Your task to perform on an android device: find snoozed emails in the gmail app Image 0: 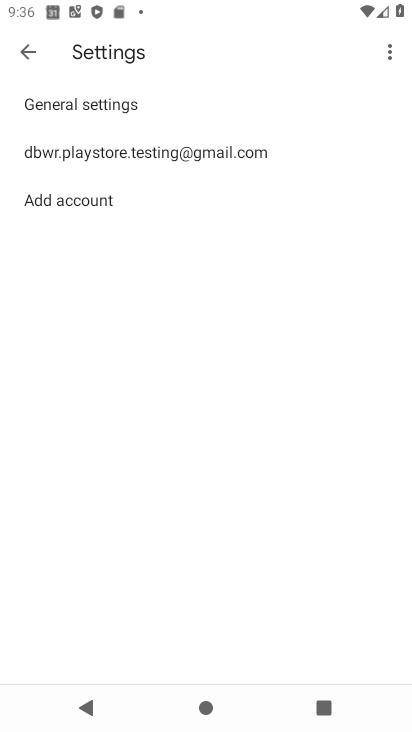
Step 0: press home button
Your task to perform on an android device: find snoozed emails in the gmail app Image 1: 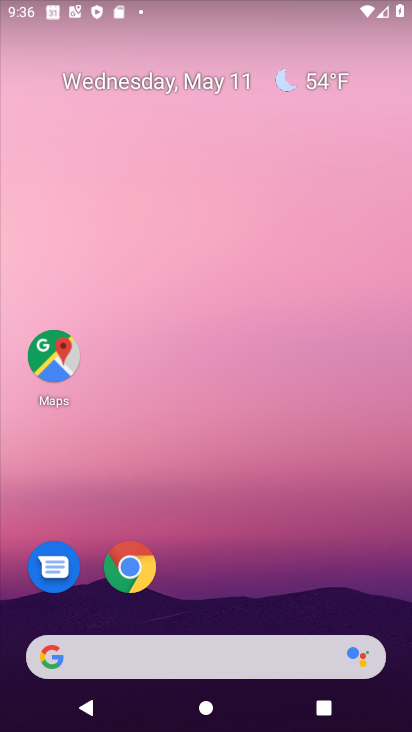
Step 1: drag from (221, 547) to (97, 8)
Your task to perform on an android device: find snoozed emails in the gmail app Image 2: 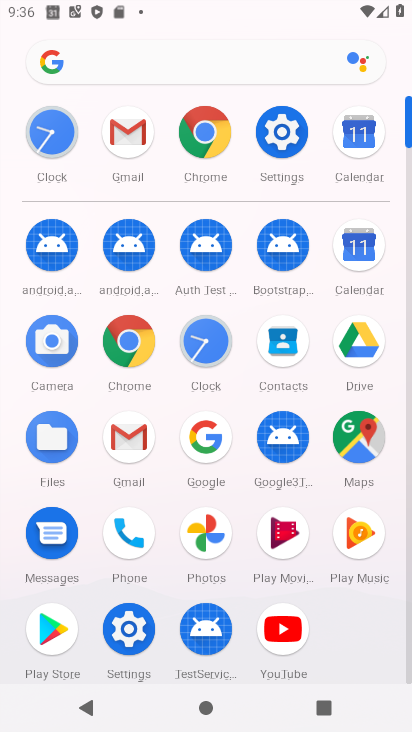
Step 2: click (132, 446)
Your task to perform on an android device: find snoozed emails in the gmail app Image 3: 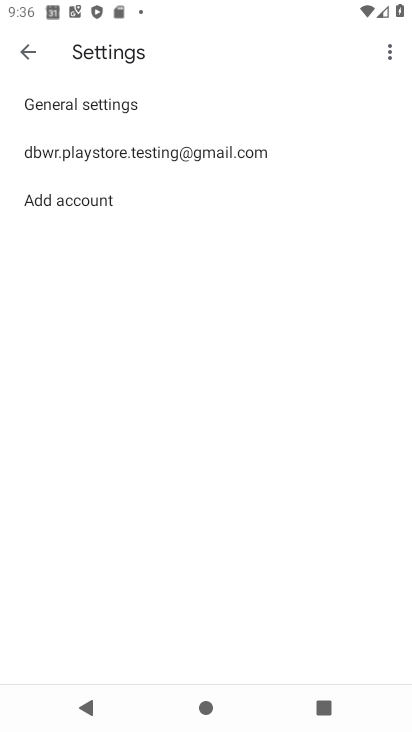
Step 3: click (20, 48)
Your task to perform on an android device: find snoozed emails in the gmail app Image 4: 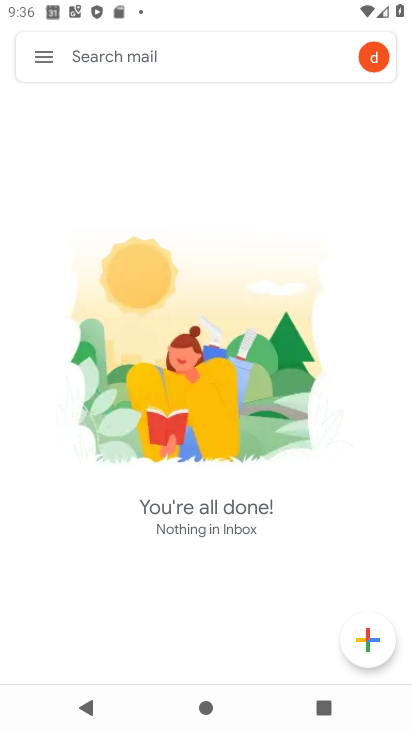
Step 4: click (28, 59)
Your task to perform on an android device: find snoozed emails in the gmail app Image 5: 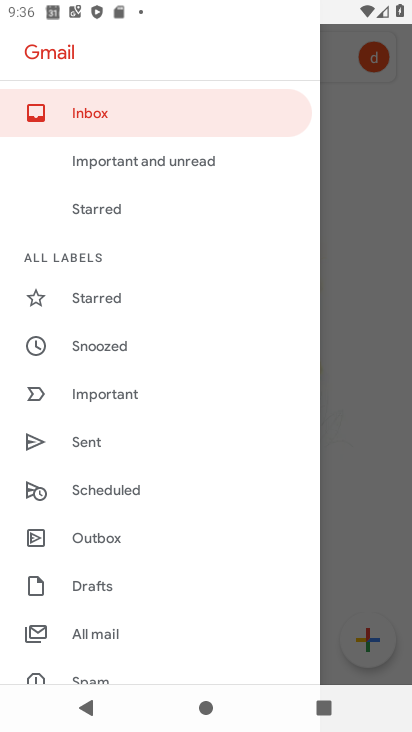
Step 5: drag from (90, 633) to (141, 367)
Your task to perform on an android device: find snoozed emails in the gmail app Image 6: 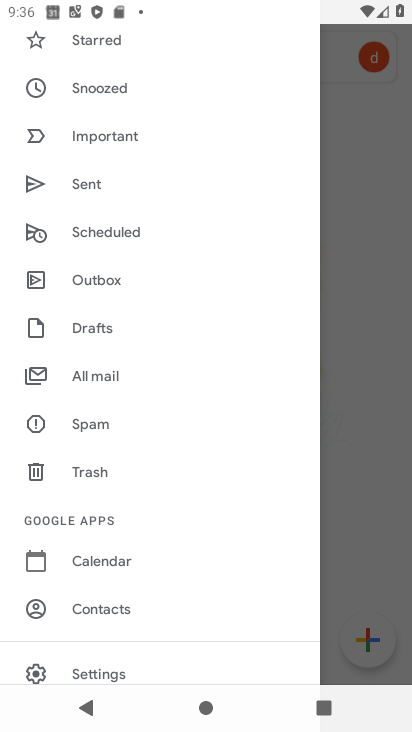
Step 6: click (113, 85)
Your task to perform on an android device: find snoozed emails in the gmail app Image 7: 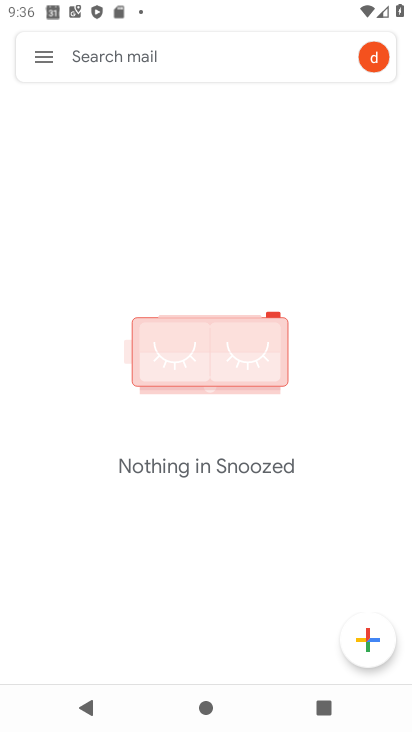
Step 7: task complete